Your task to perform on an android device: Open Google Chrome and click the shortcut for Amazon.com Image 0: 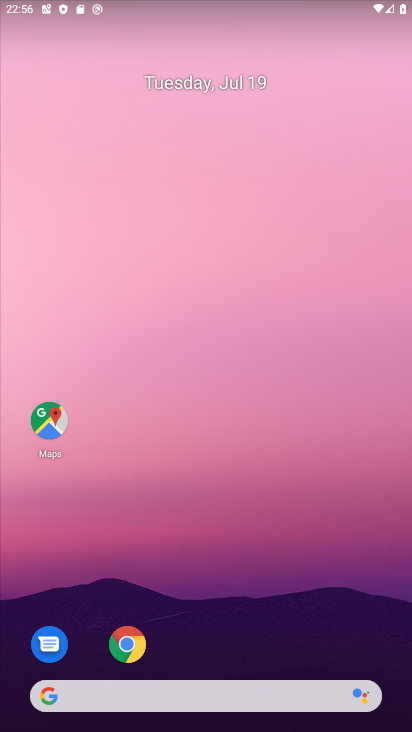
Step 0: drag from (196, 728) to (220, 337)
Your task to perform on an android device: Open Google Chrome and click the shortcut for Amazon.com Image 1: 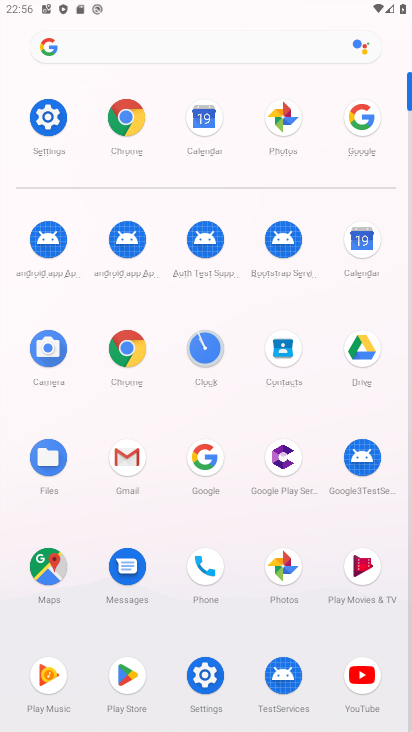
Step 1: click (128, 344)
Your task to perform on an android device: Open Google Chrome and click the shortcut for Amazon.com Image 2: 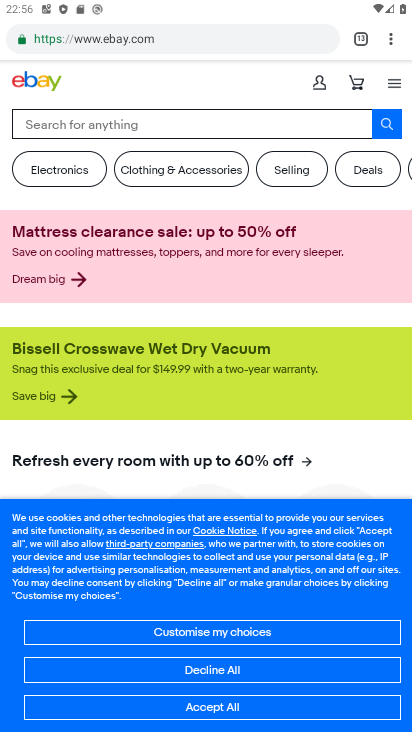
Step 2: click (390, 44)
Your task to perform on an android device: Open Google Chrome and click the shortcut for Amazon.com Image 3: 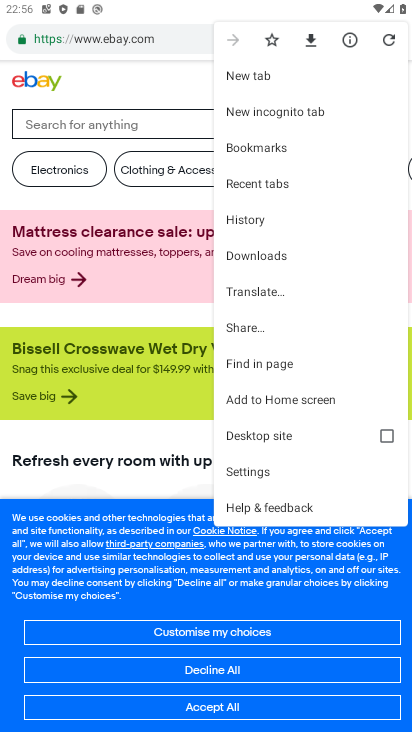
Step 3: click (242, 73)
Your task to perform on an android device: Open Google Chrome and click the shortcut for Amazon.com Image 4: 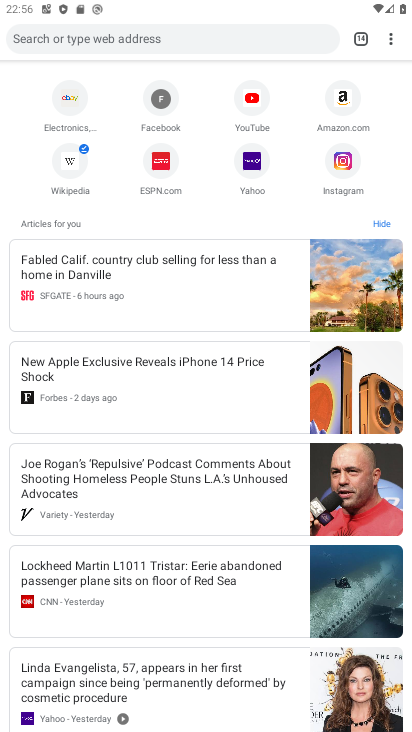
Step 4: click (345, 103)
Your task to perform on an android device: Open Google Chrome and click the shortcut for Amazon.com Image 5: 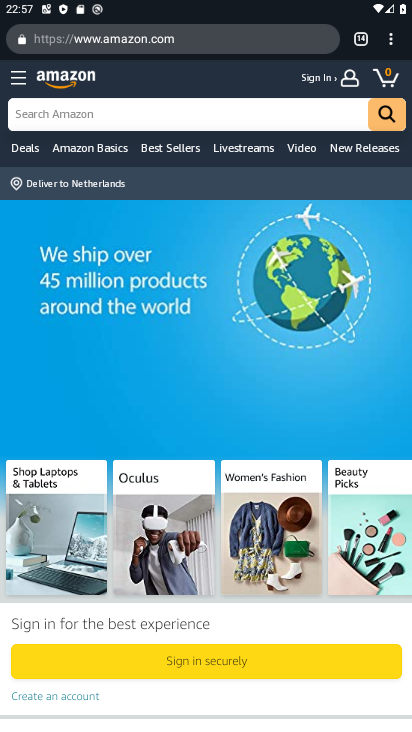
Step 5: task complete